Your task to perform on an android device: find snoozed emails in the gmail app Image 0: 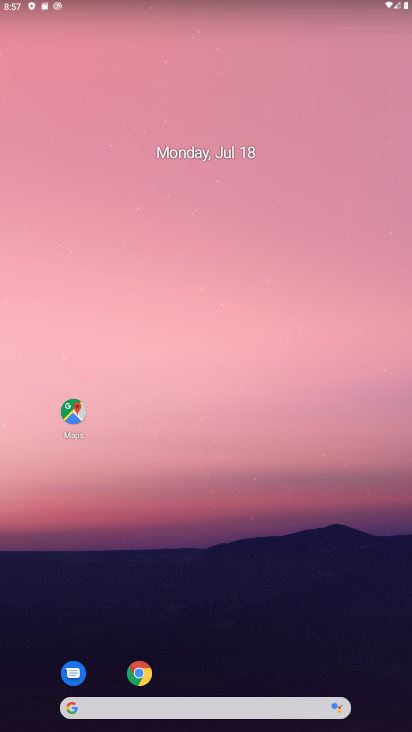
Step 0: click (139, 674)
Your task to perform on an android device: find snoozed emails in the gmail app Image 1: 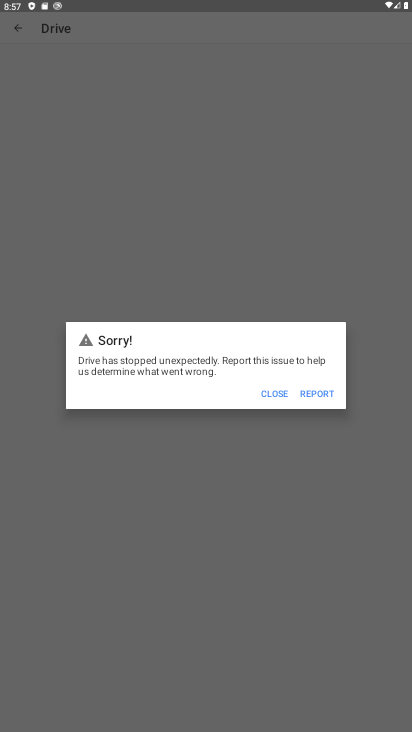
Step 1: click (137, 682)
Your task to perform on an android device: find snoozed emails in the gmail app Image 2: 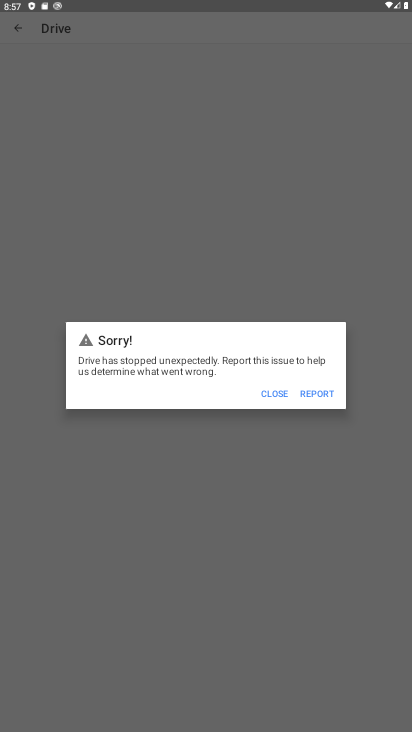
Step 2: press home button
Your task to perform on an android device: find snoozed emails in the gmail app Image 3: 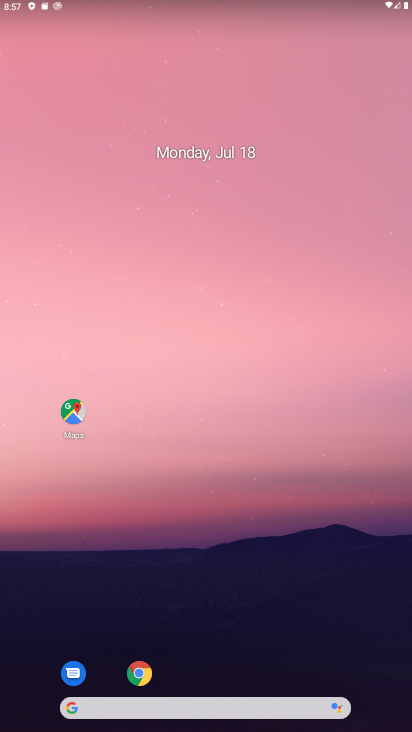
Step 3: drag from (224, 673) to (255, 152)
Your task to perform on an android device: find snoozed emails in the gmail app Image 4: 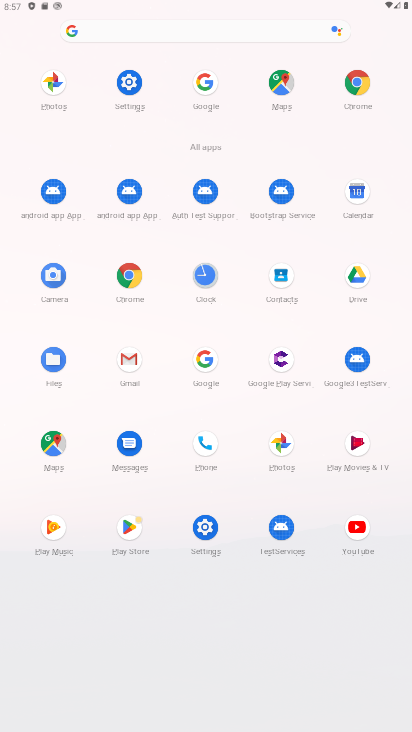
Step 4: click (134, 363)
Your task to perform on an android device: find snoozed emails in the gmail app Image 5: 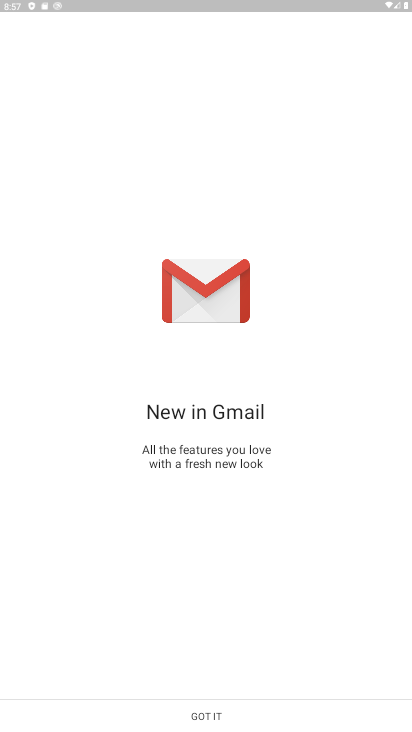
Step 5: click (203, 706)
Your task to perform on an android device: find snoozed emails in the gmail app Image 6: 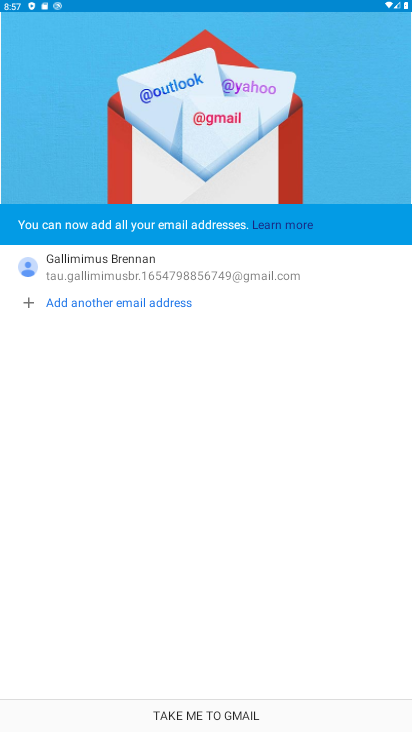
Step 6: click (203, 705)
Your task to perform on an android device: find snoozed emails in the gmail app Image 7: 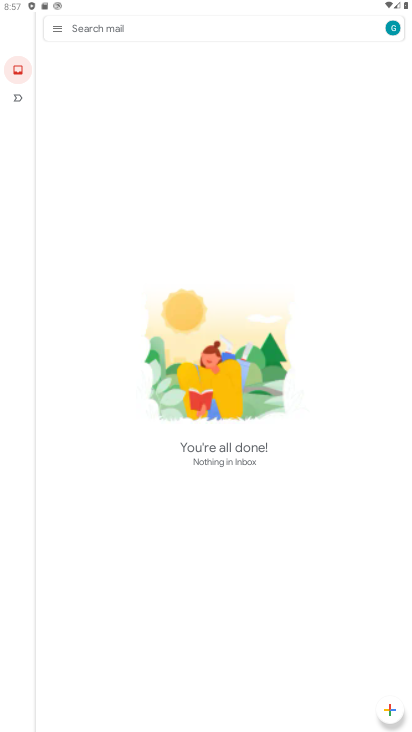
Step 7: click (60, 29)
Your task to perform on an android device: find snoozed emails in the gmail app Image 8: 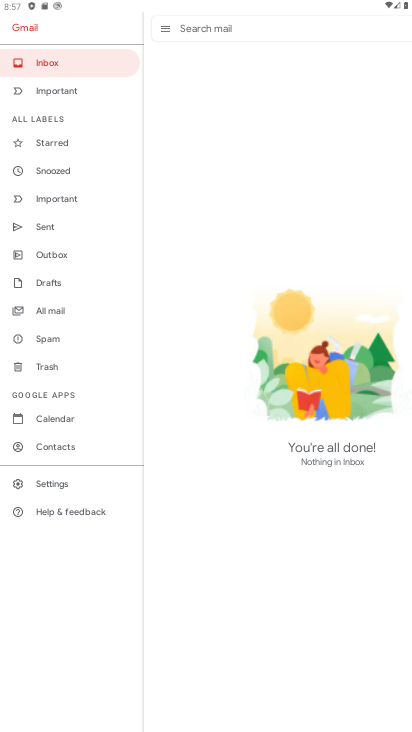
Step 8: click (68, 167)
Your task to perform on an android device: find snoozed emails in the gmail app Image 9: 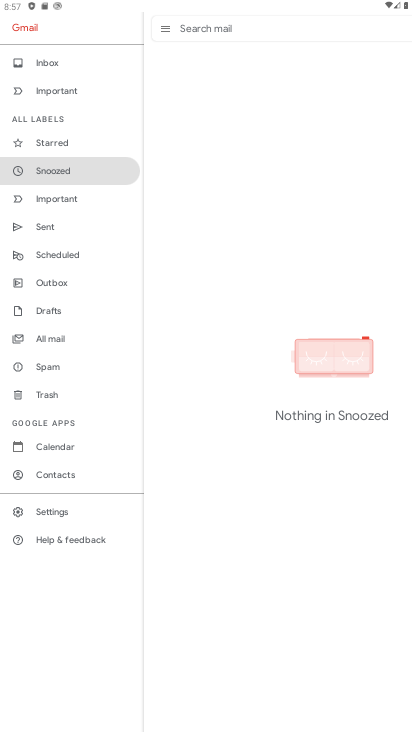
Step 9: task complete